Your task to perform on an android device: check android version Image 0: 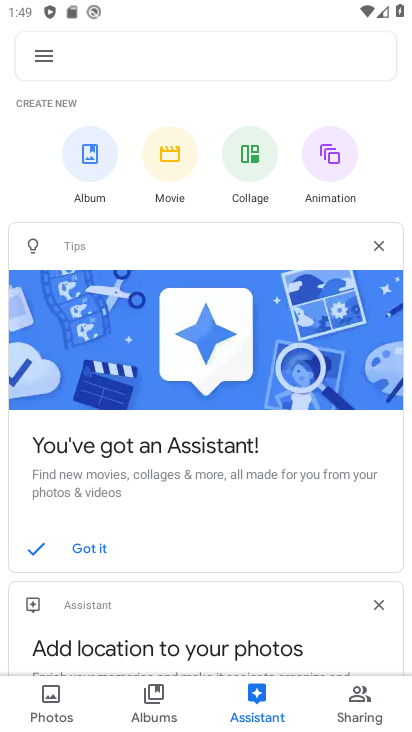
Step 0: press home button
Your task to perform on an android device: check android version Image 1: 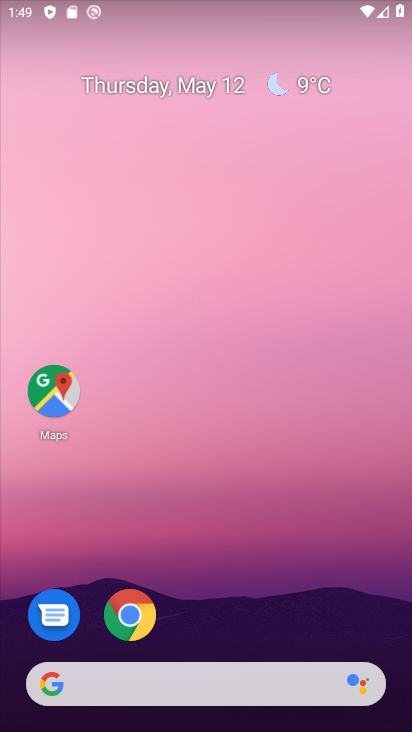
Step 1: drag from (174, 674) to (213, 108)
Your task to perform on an android device: check android version Image 2: 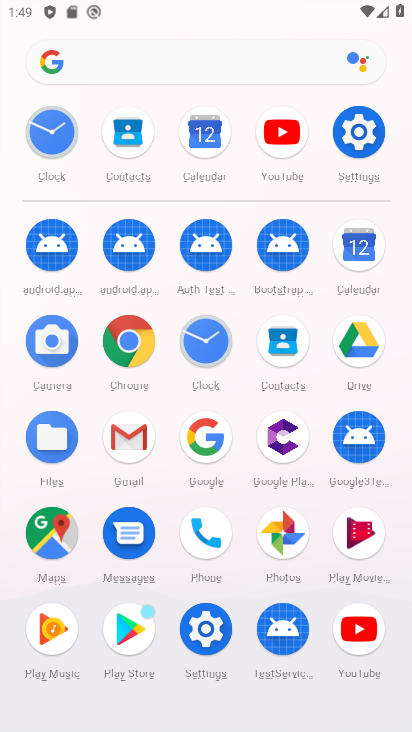
Step 2: click (205, 634)
Your task to perform on an android device: check android version Image 3: 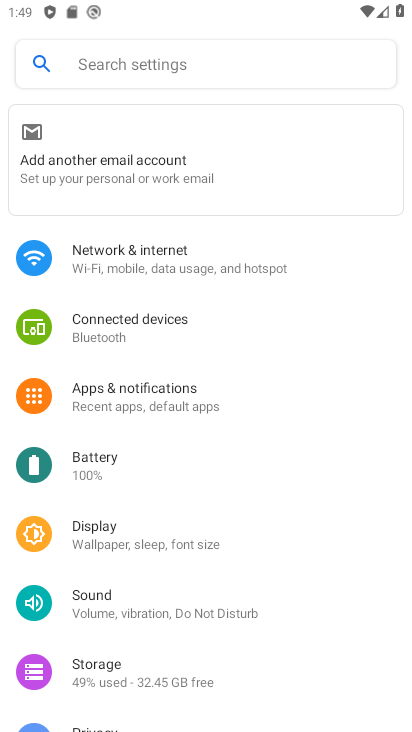
Step 3: drag from (155, 588) to (106, 30)
Your task to perform on an android device: check android version Image 4: 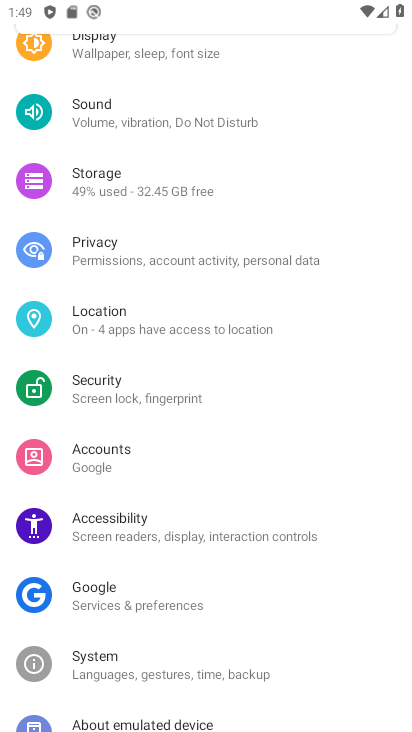
Step 4: drag from (205, 686) to (220, 204)
Your task to perform on an android device: check android version Image 5: 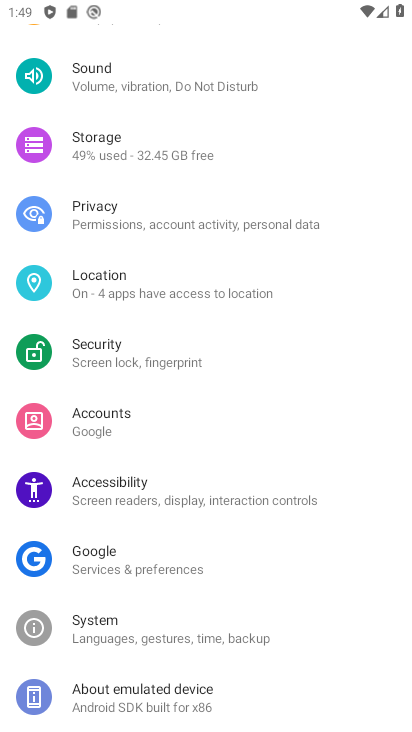
Step 5: click (176, 697)
Your task to perform on an android device: check android version Image 6: 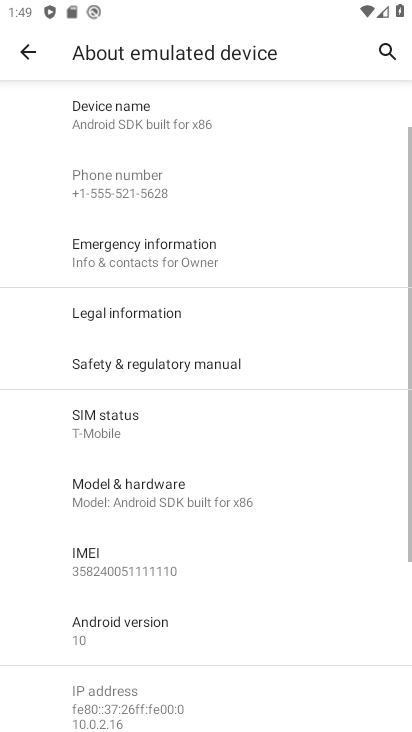
Step 6: click (120, 637)
Your task to perform on an android device: check android version Image 7: 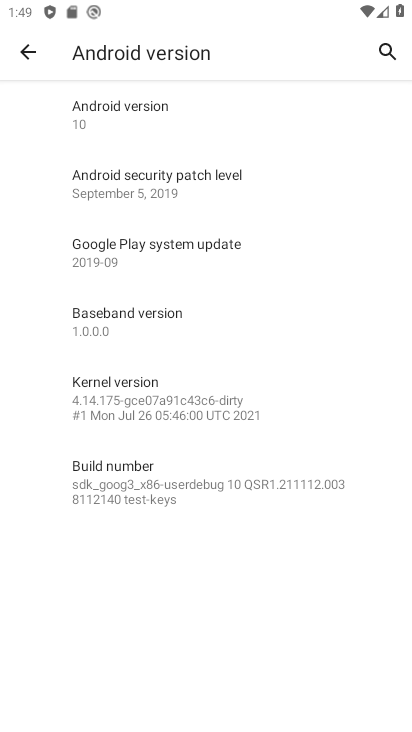
Step 7: task complete